Your task to perform on an android device: Search for flights from NYC to Tokyo Image 0: 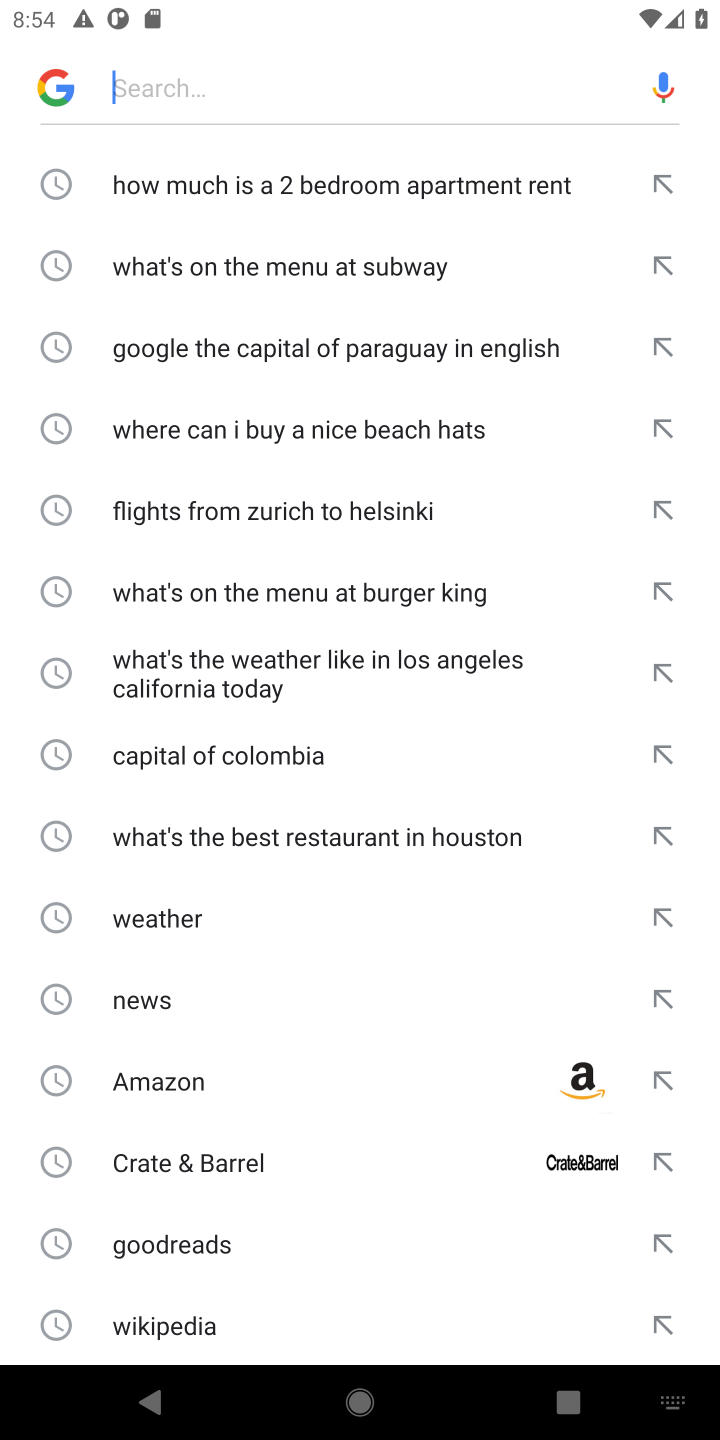
Step 0: type " flights from NYC to Tokyo"
Your task to perform on an android device: Search for flights from NYC to Tokyo Image 1: 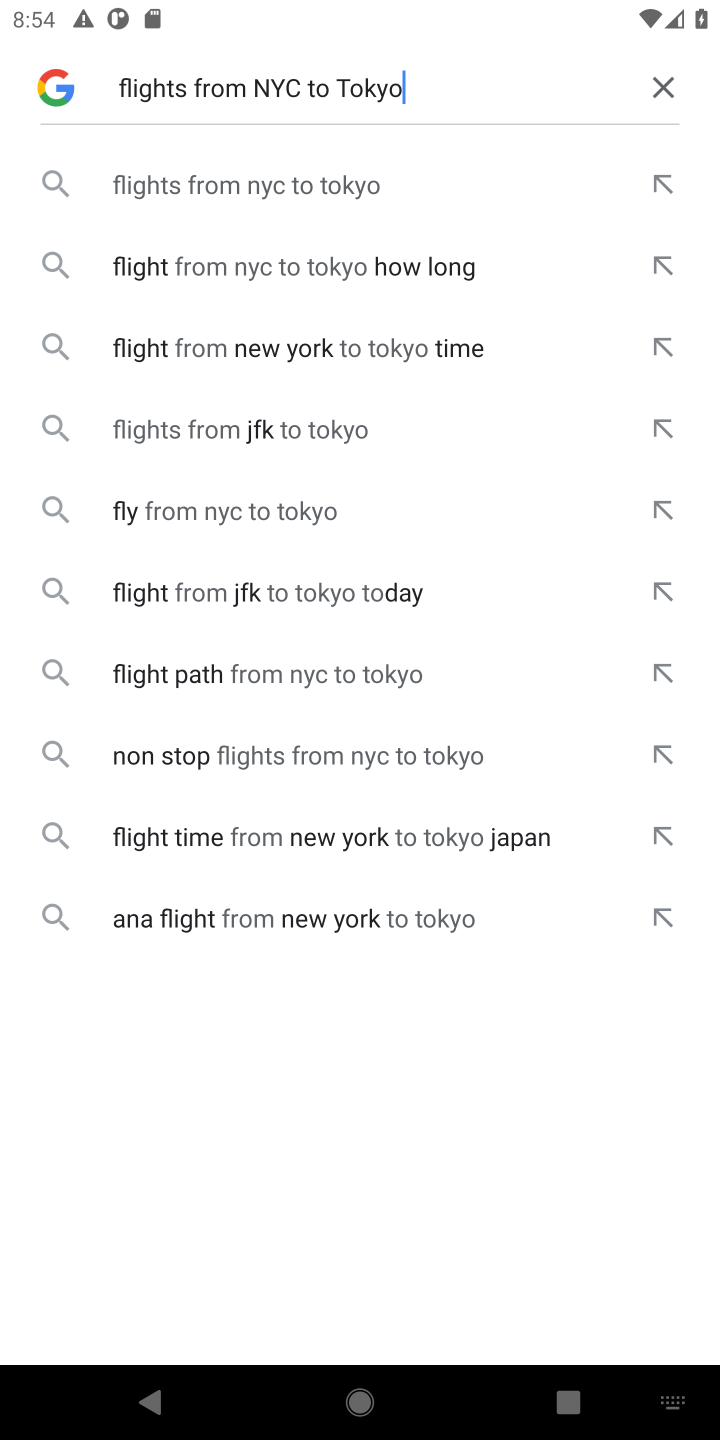
Step 1: click (339, 180)
Your task to perform on an android device: Search for flights from NYC to Tokyo Image 2: 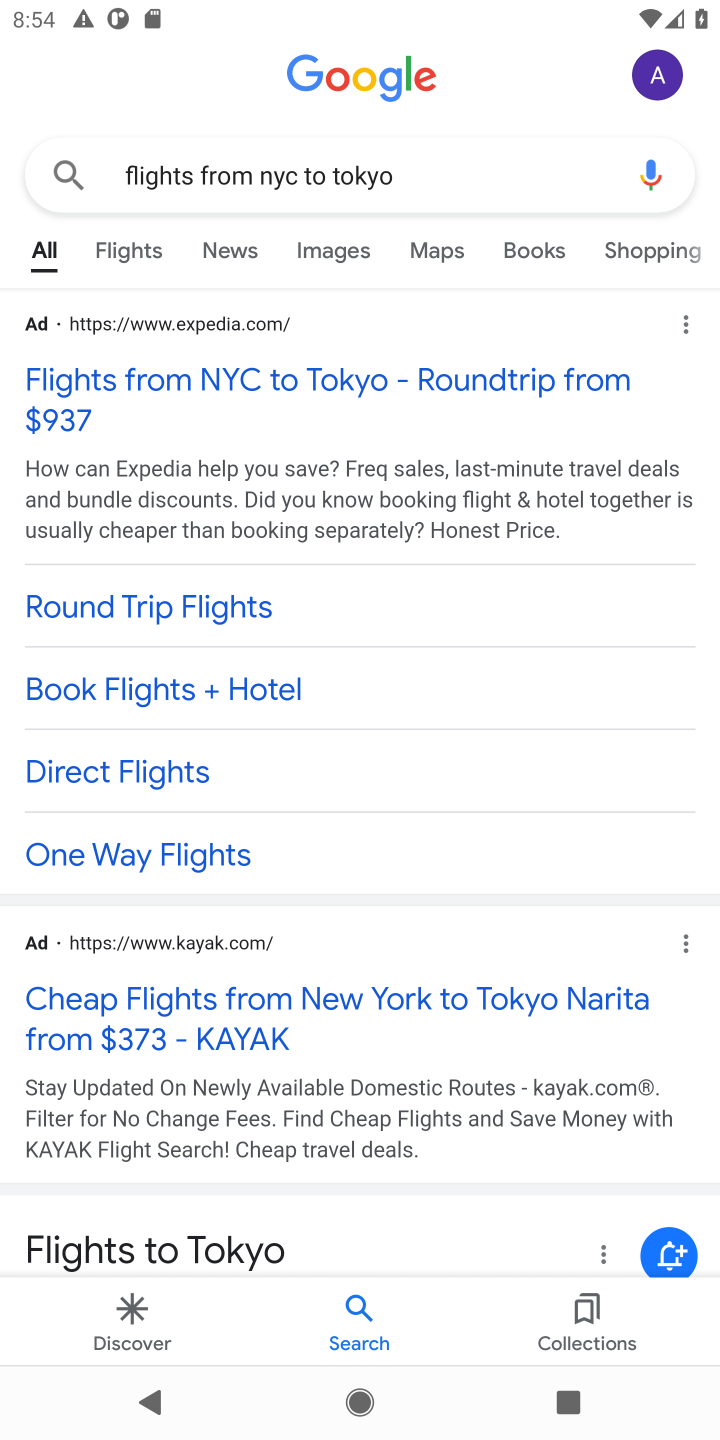
Step 2: click (228, 386)
Your task to perform on an android device: Search for flights from NYC to Tokyo Image 3: 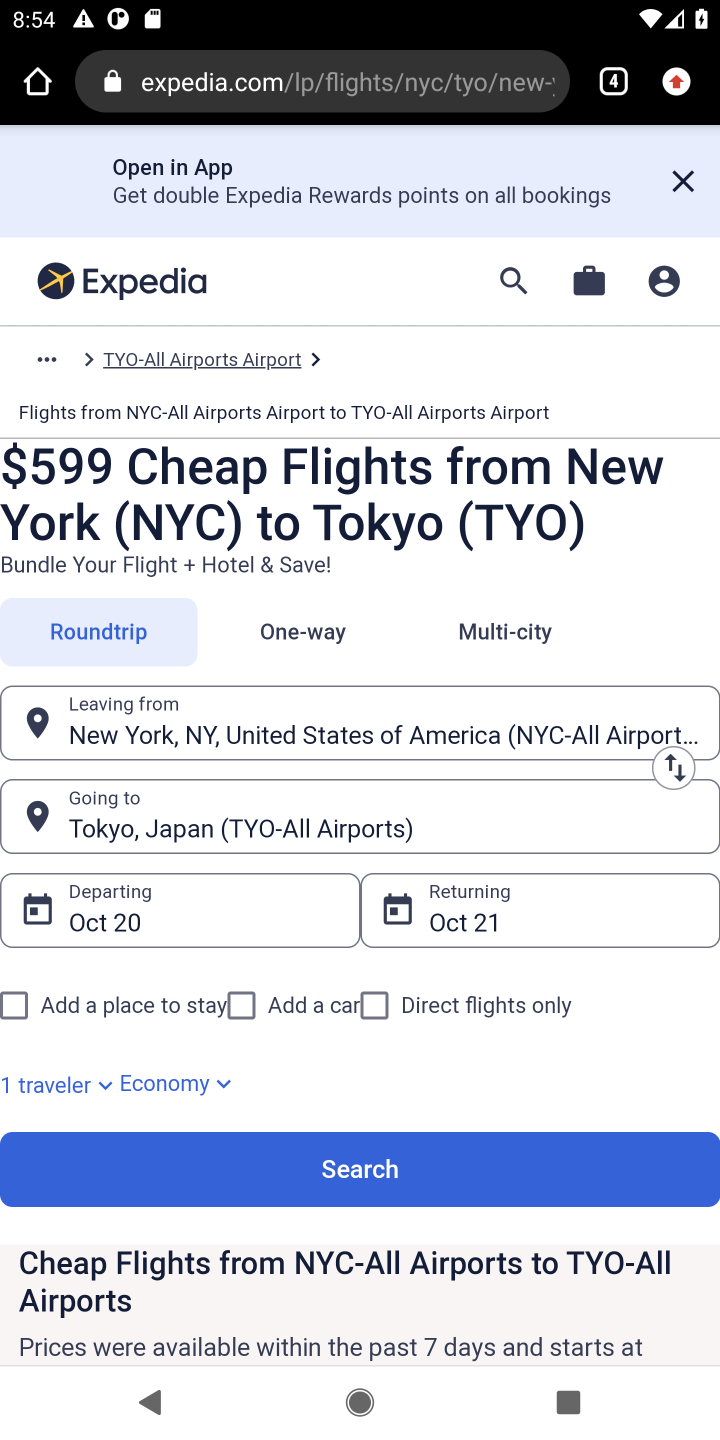
Step 3: task complete